Your task to perform on an android device: Go to Yahoo.com Image 0: 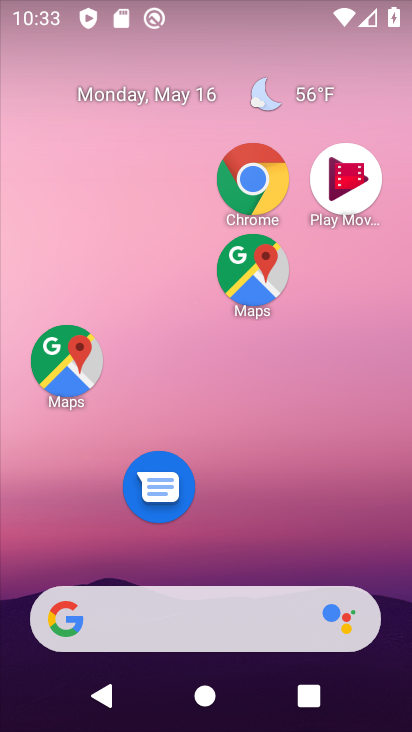
Step 0: click (241, 197)
Your task to perform on an android device: Go to Yahoo.com Image 1: 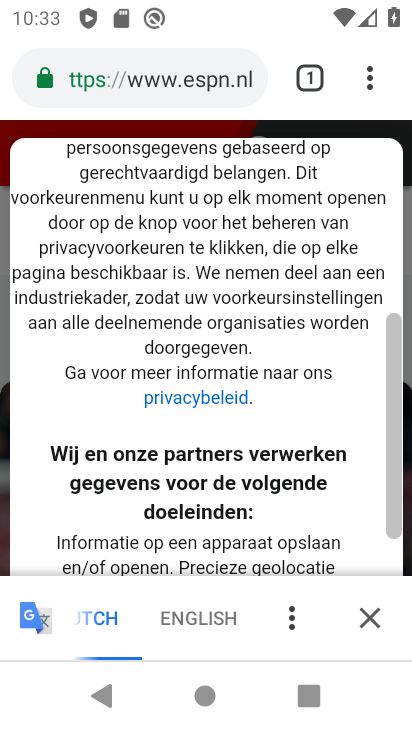
Step 1: press back button
Your task to perform on an android device: Go to Yahoo.com Image 2: 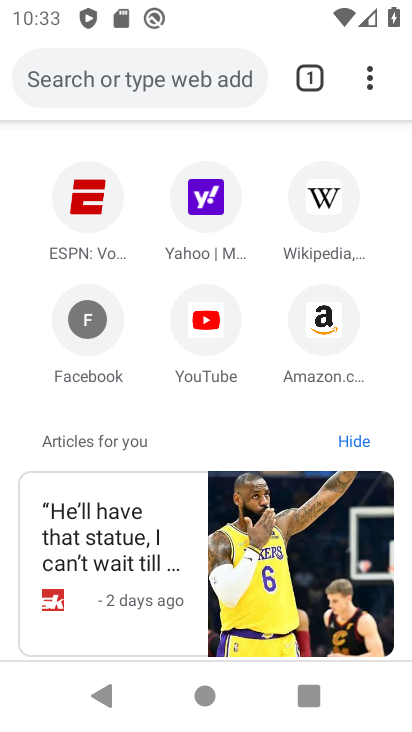
Step 2: click (213, 225)
Your task to perform on an android device: Go to Yahoo.com Image 3: 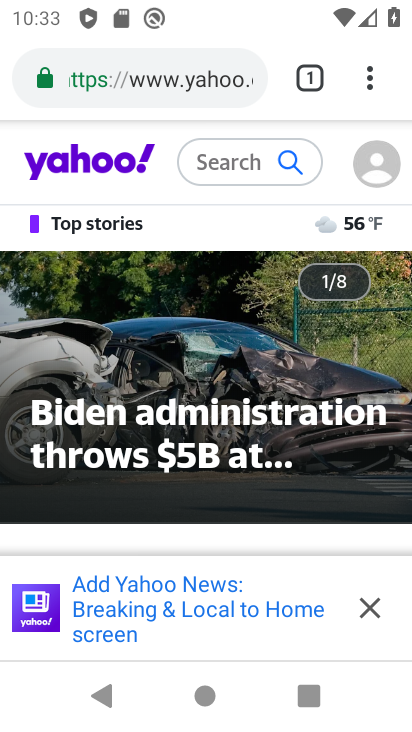
Step 3: task complete